Your task to perform on an android device: Show me popular videos on Youtube Image 0: 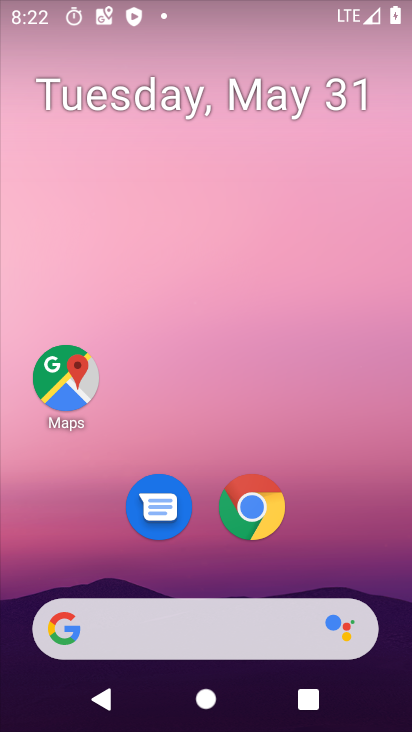
Step 0: click (375, 364)
Your task to perform on an android device: Show me popular videos on Youtube Image 1: 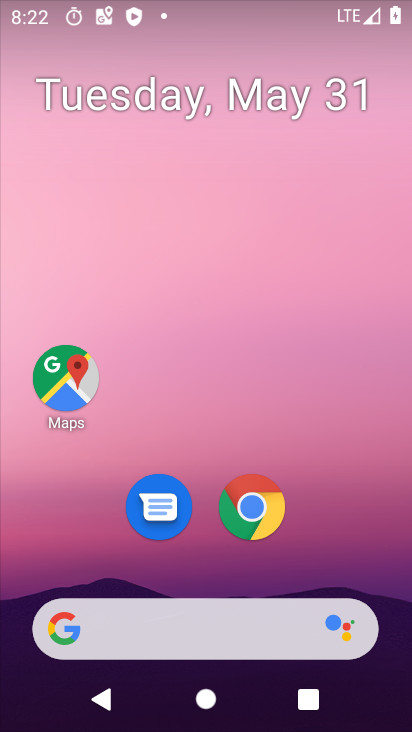
Step 1: drag from (62, 521) to (204, 139)
Your task to perform on an android device: Show me popular videos on Youtube Image 2: 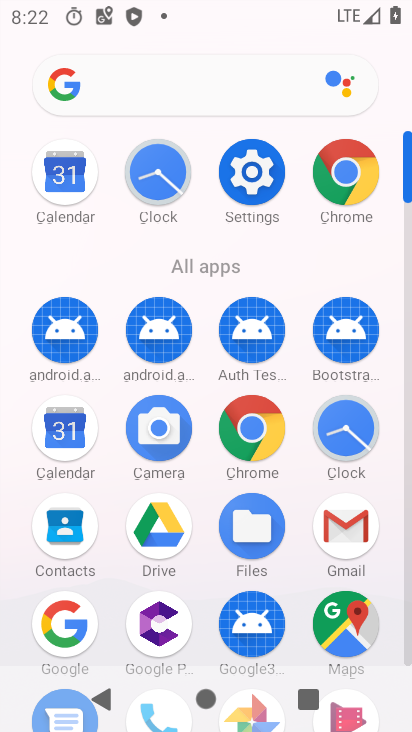
Step 2: drag from (2, 601) to (216, 214)
Your task to perform on an android device: Show me popular videos on Youtube Image 3: 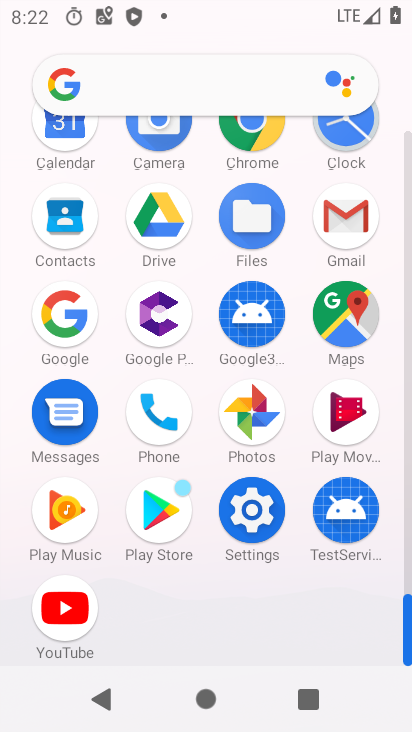
Step 3: drag from (37, 560) to (174, 292)
Your task to perform on an android device: Show me popular videos on Youtube Image 4: 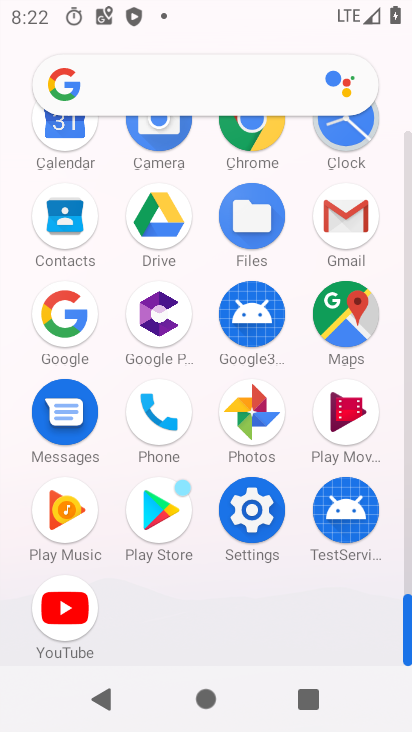
Step 4: click (63, 612)
Your task to perform on an android device: Show me popular videos on Youtube Image 5: 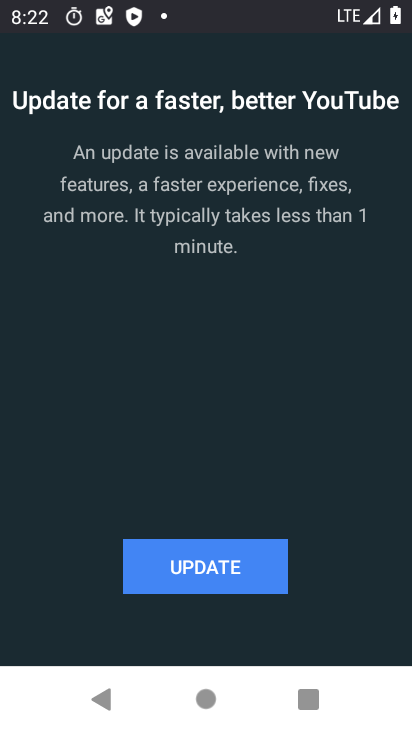
Step 5: task complete